Your task to perform on an android device: Find coffee shops on Maps Image 0: 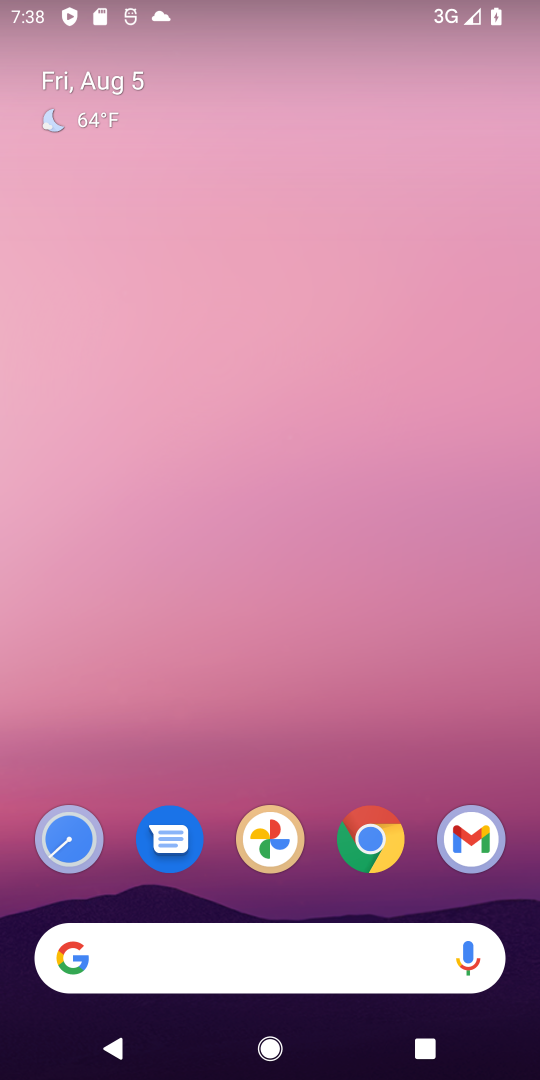
Step 0: drag from (300, 852) to (274, 100)
Your task to perform on an android device: Find coffee shops on Maps Image 1: 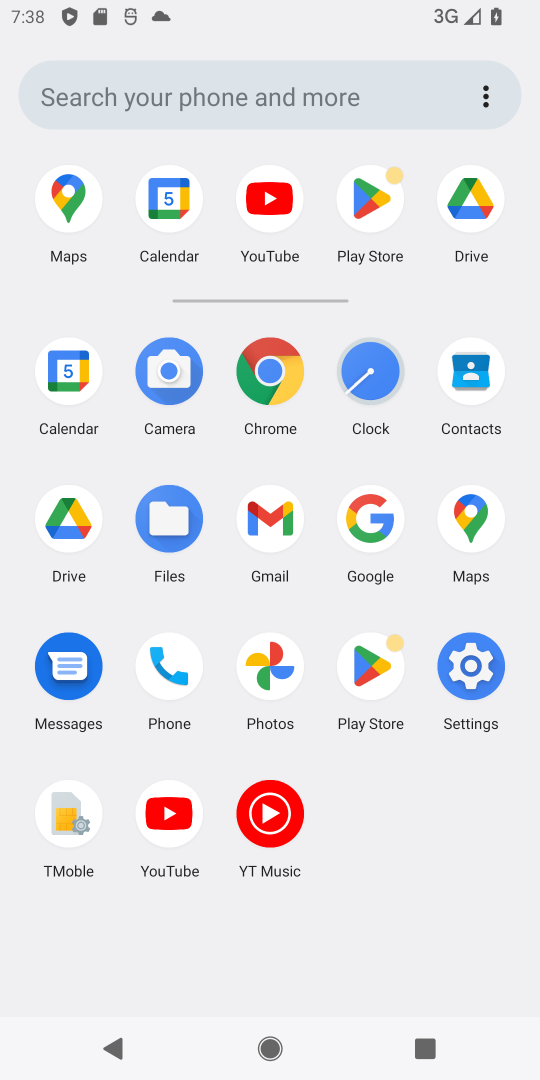
Step 1: click (469, 508)
Your task to perform on an android device: Find coffee shops on Maps Image 2: 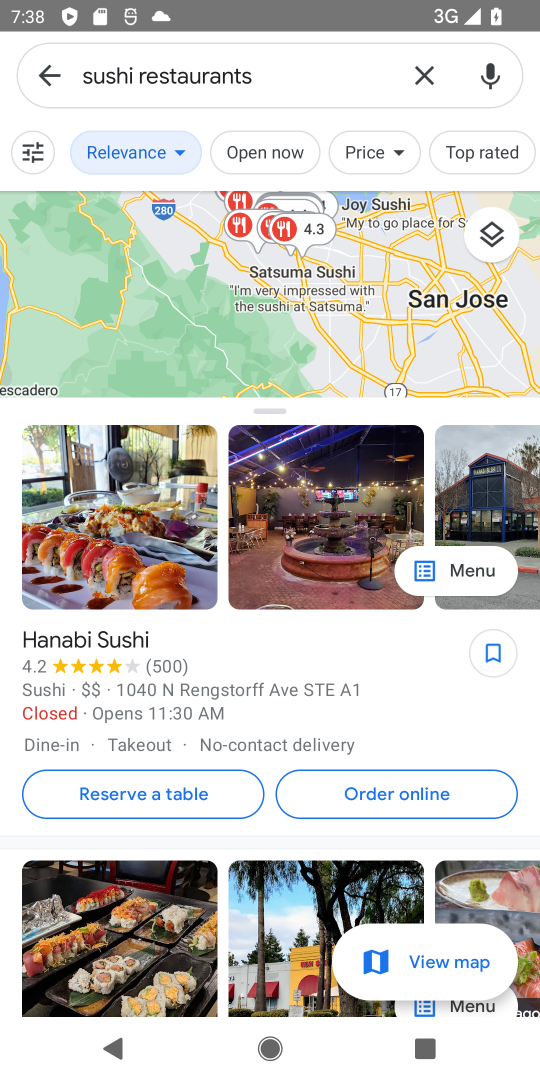
Step 2: click (413, 63)
Your task to perform on an android device: Find coffee shops on Maps Image 3: 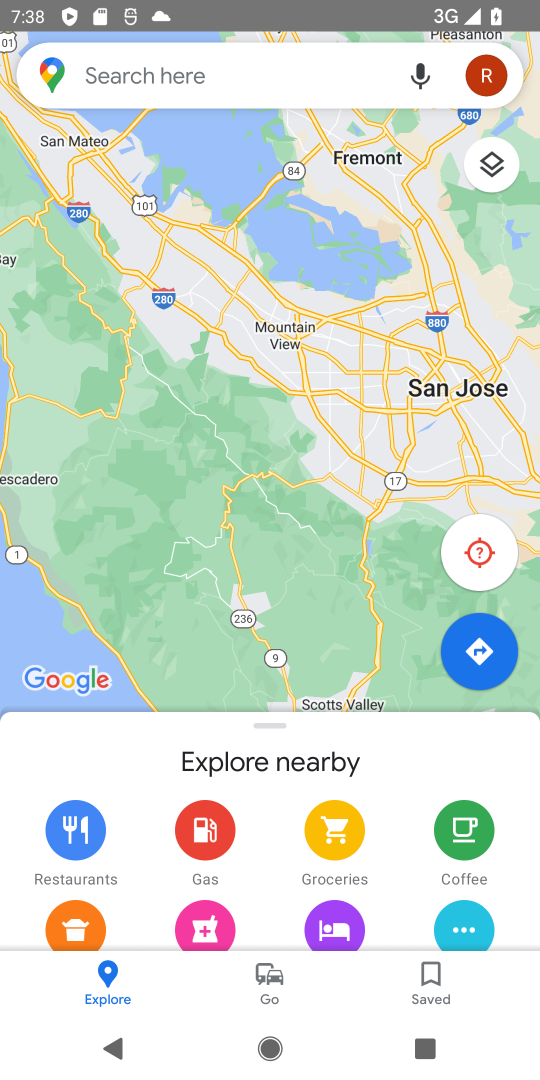
Step 3: click (338, 63)
Your task to perform on an android device: Find coffee shops on Maps Image 4: 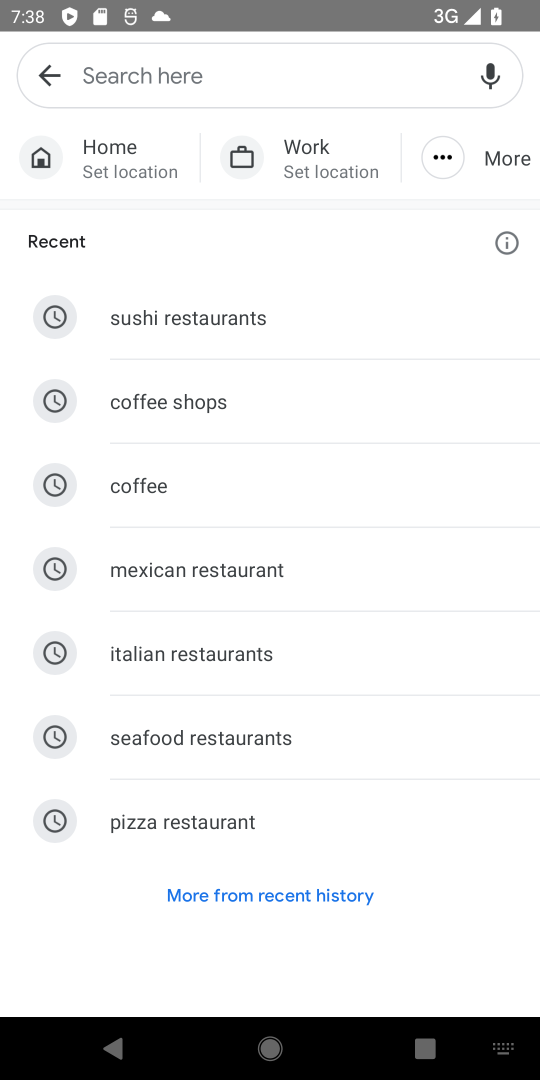
Step 4: type "coffee shops"
Your task to perform on an android device: Find coffee shops on Maps Image 5: 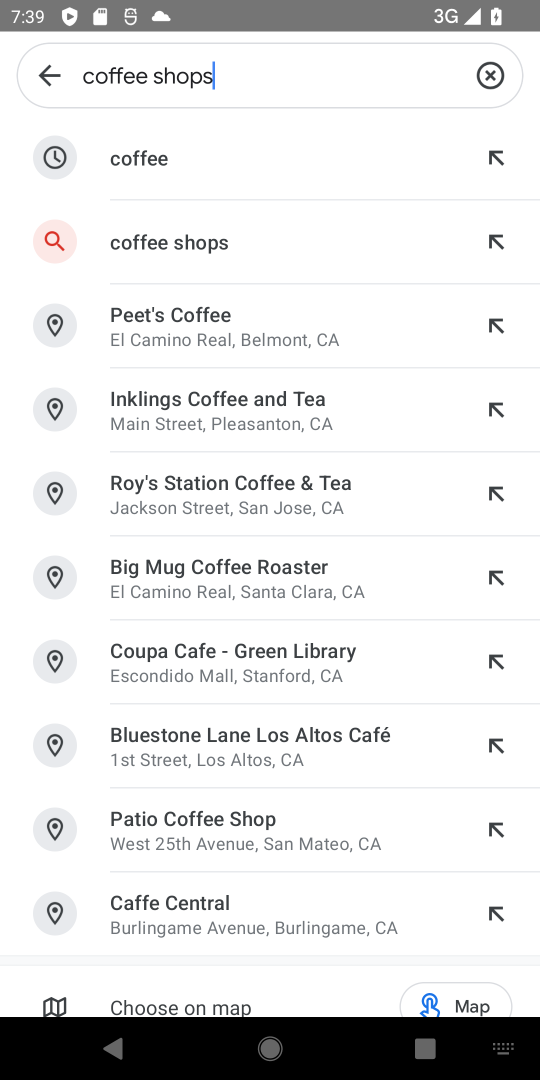
Step 5: click (190, 240)
Your task to perform on an android device: Find coffee shops on Maps Image 6: 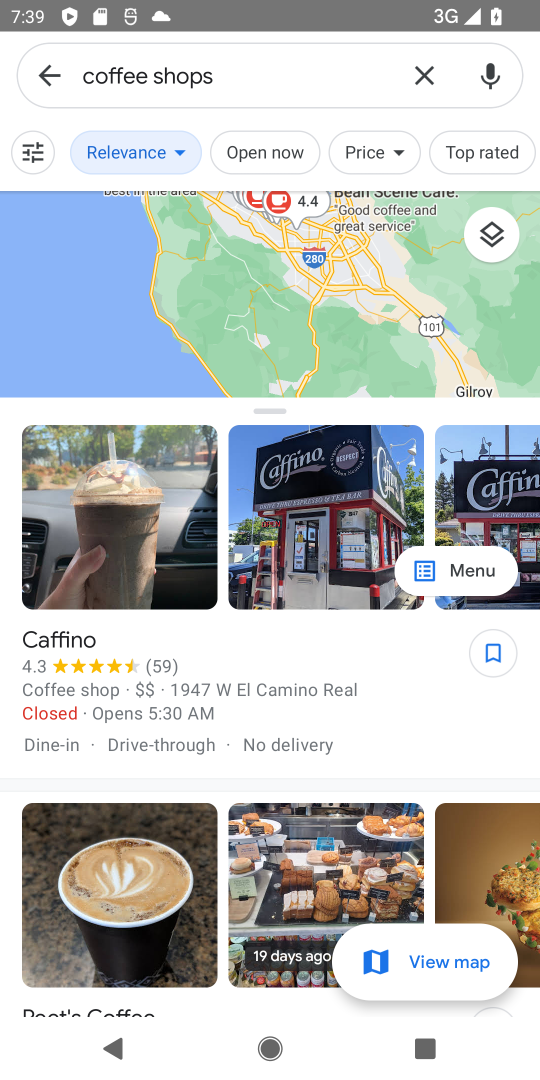
Step 6: task complete